Your task to perform on an android device: turn on improve location accuracy Image 0: 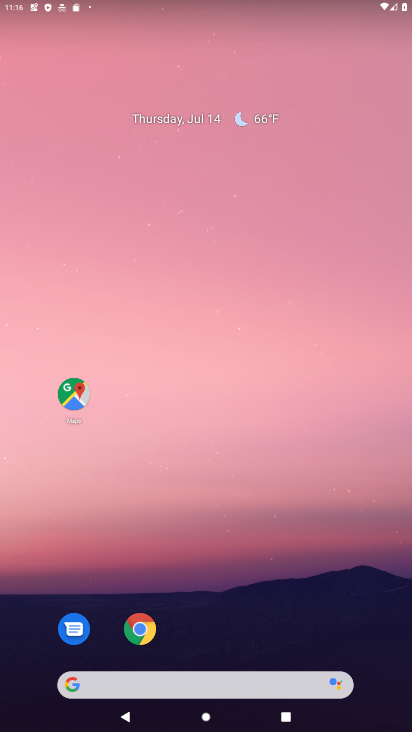
Step 0: press home button
Your task to perform on an android device: turn on improve location accuracy Image 1: 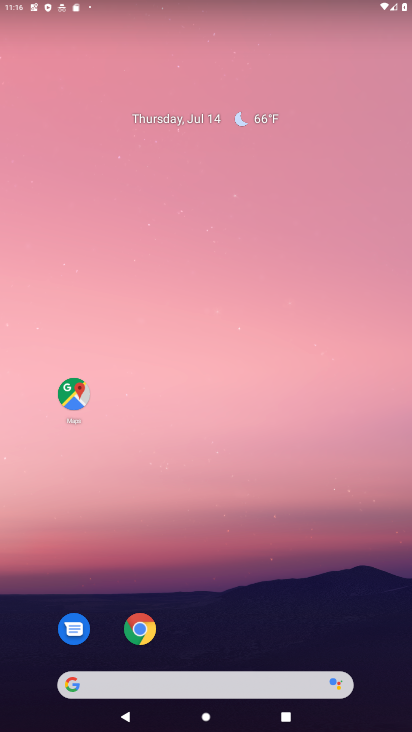
Step 1: drag from (272, 634) to (199, 168)
Your task to perform on an android device: turn on improve location accuracy Image 2: 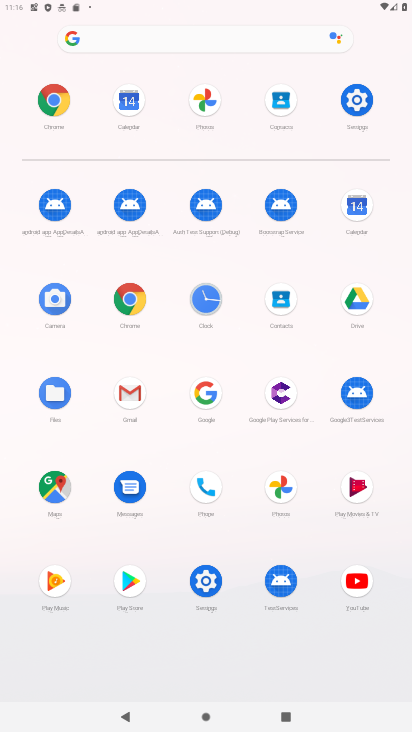
Step 2: click (354, 100)
Your task to perform on an android device: turn on improve location accuracy Image 3: 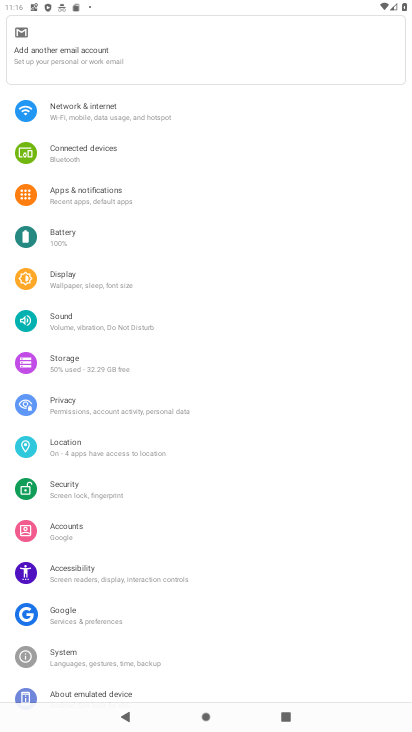
Step 3: click (73, 448)
Your task to perform on an android device: turn on improve location accuracy Image 4: 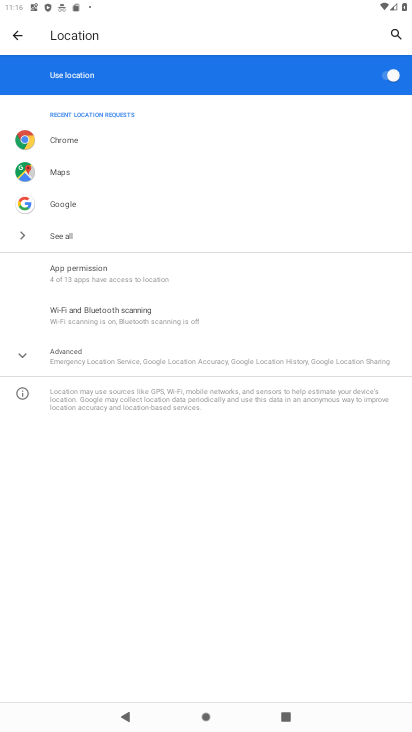
Step 4: click (26, 361)
Your task to perform on an android device: turn on improve location accuracy Image 5: 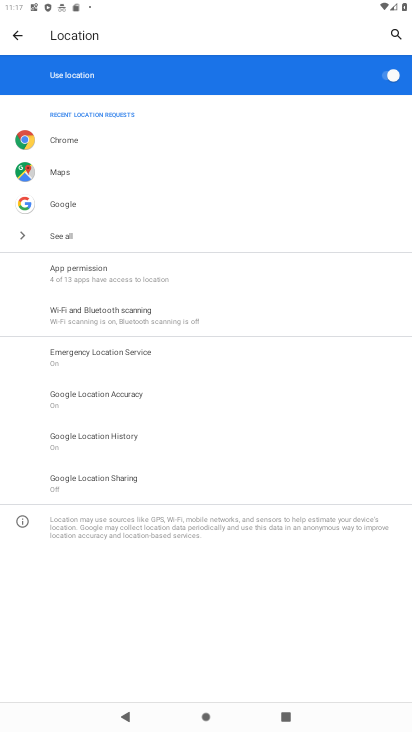
Step 5: task complete